Your task to perform on an android device: turn off smart reply in the gmail app Image 0: 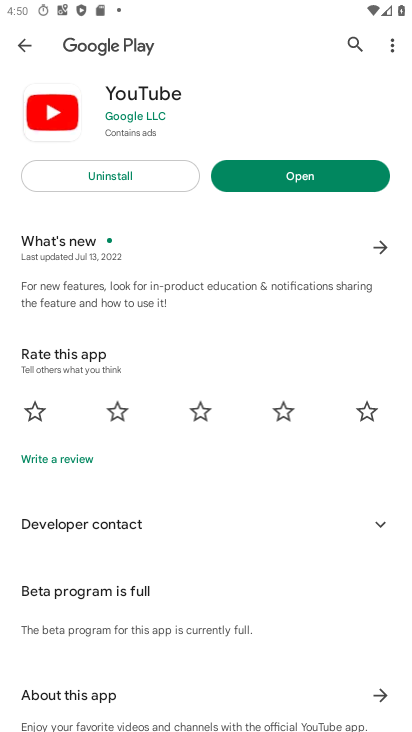
Step 0: press home button
Your task to perform on an android device: turn off smart reply in the gmail app Image 1: 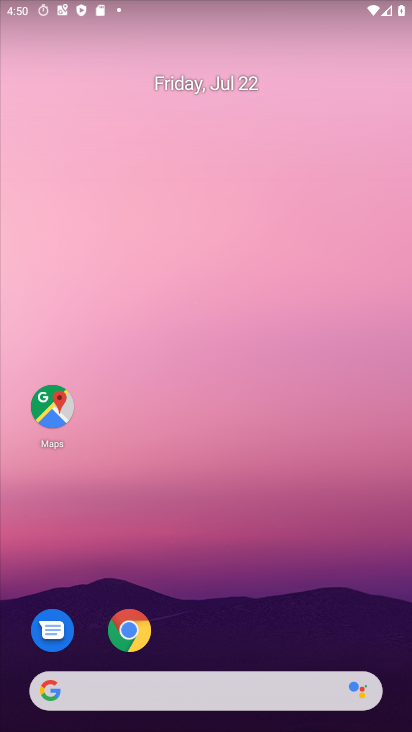
Step 1: drag from (227, 639) to (187, 17)
Your task to perform on an android device: turn off smart reply in the gmail app Image 2: 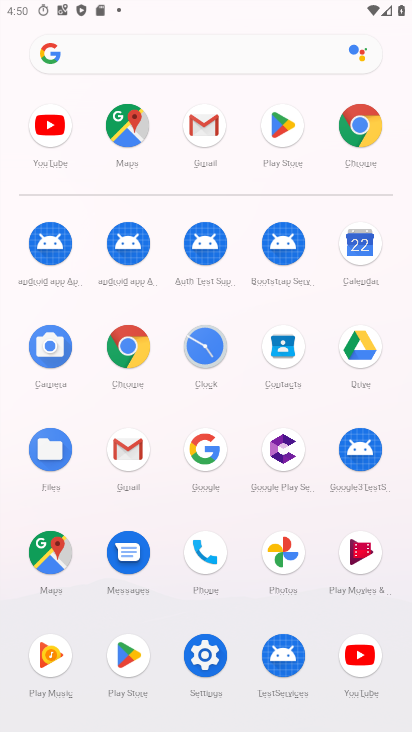
Step 2: click (130, 460)
Your task to perform on an android device: turn off smart reply in the gmail app Image 3: 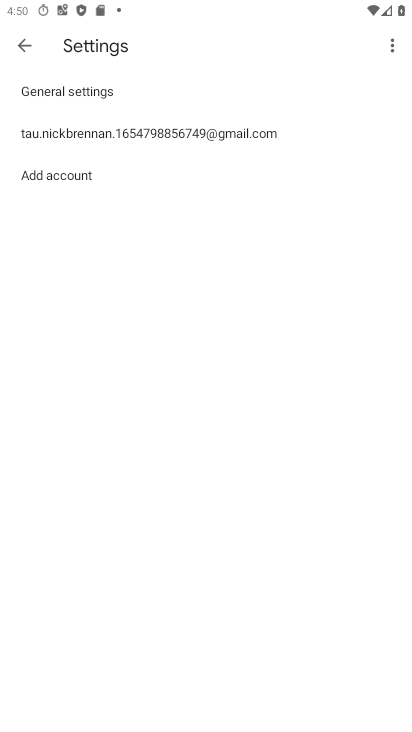
Step 3: click (196, 136)
Your task to perform on an android device: turn off smart reply in the gmail app Image 4: 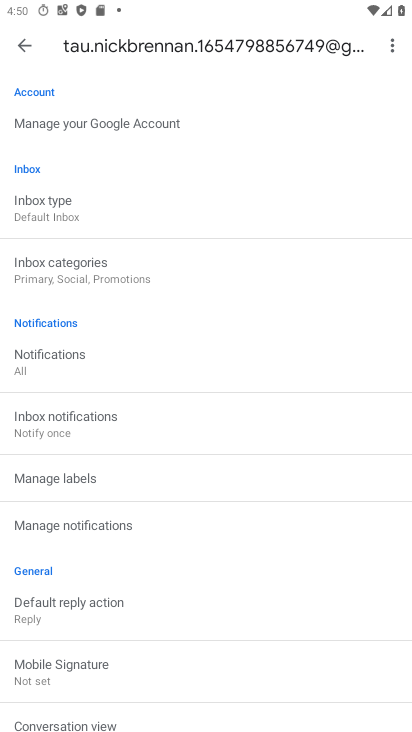
Step 4: task complete